Your task to perform on an android device: Go to Maps Image 0: 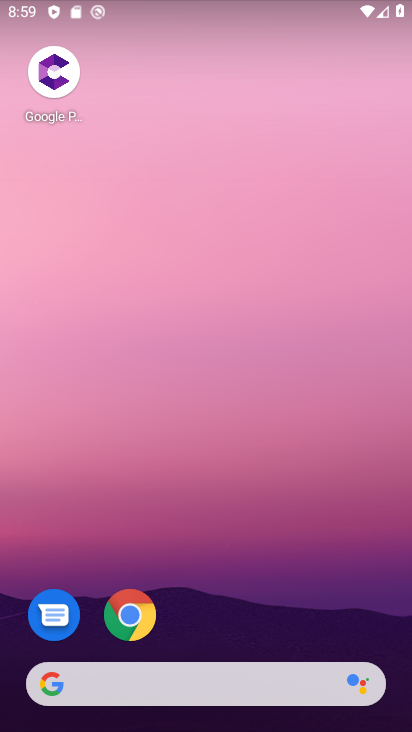
Step 0: drag from (154, 461) to (306, 496)
Your task to perform on an android device: Go to Maps Image 1: 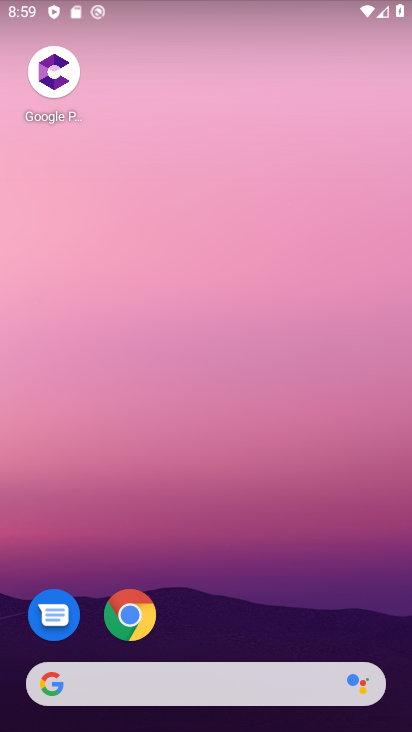
Step 1: drag from (23, 442) to (410, 516)
Your task to perform on an android device: Go to Maps Image 2: 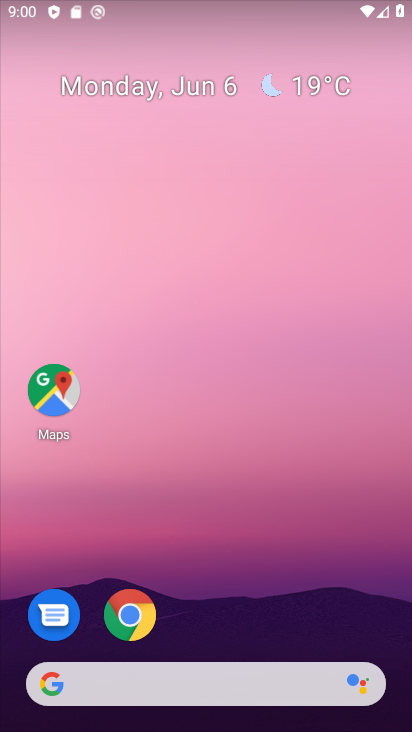
Step 2: click (69, 405)
Your task to perform on an android device: Go to Maps Image 3: 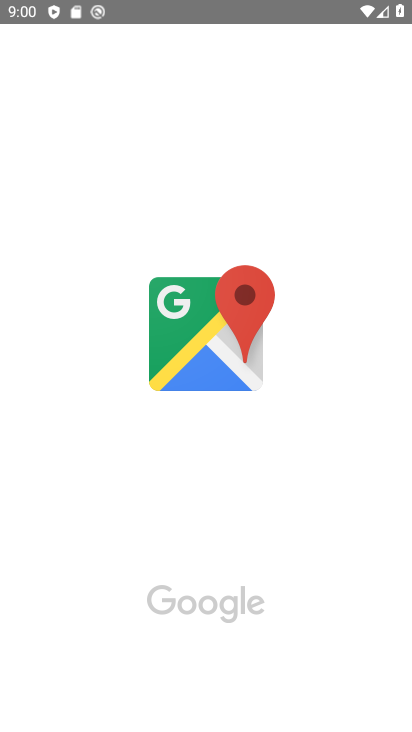
Step 3: task complete